Your task to perform on an android device: open app "Yahoo Mail" (install if not already installed) Image 0: 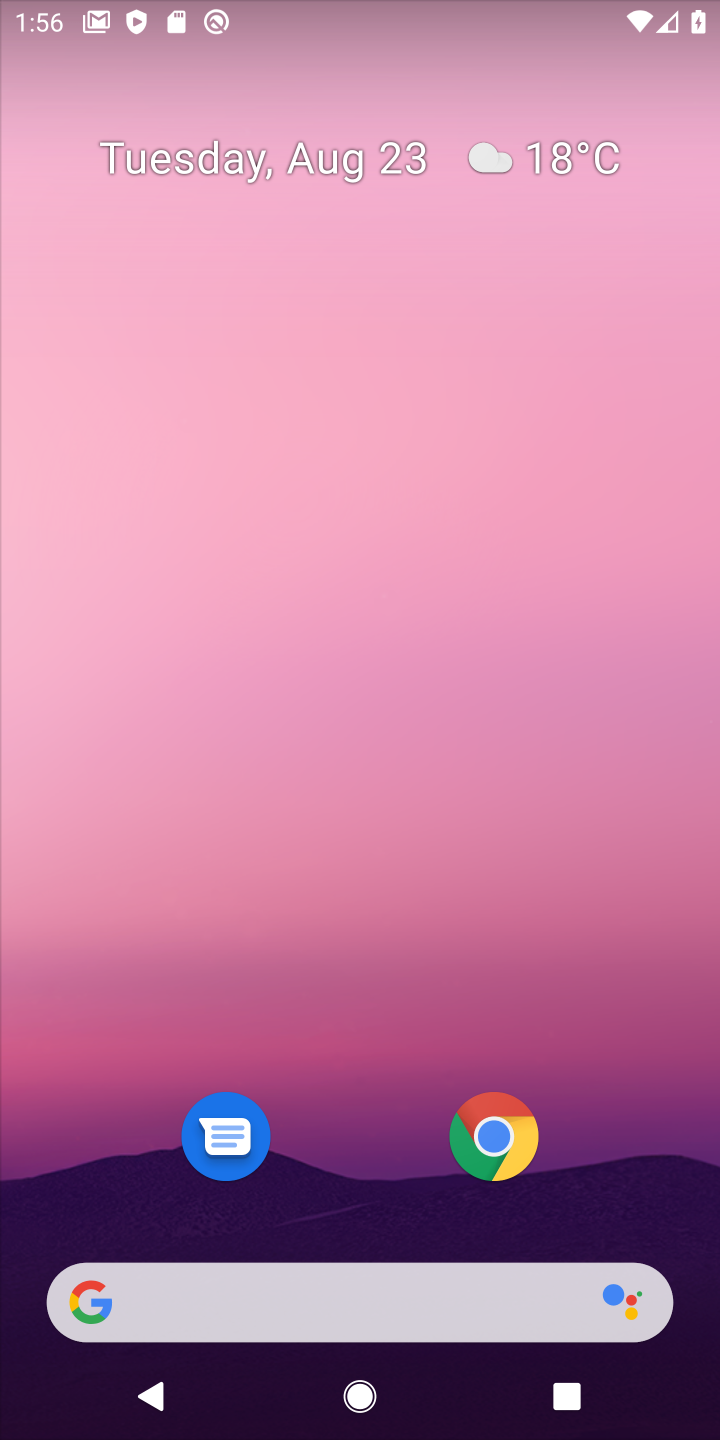
Step 0: press home button
Your task to perform on an android device: open app "Yahoo Mail" (install if not already installed) Image 1: 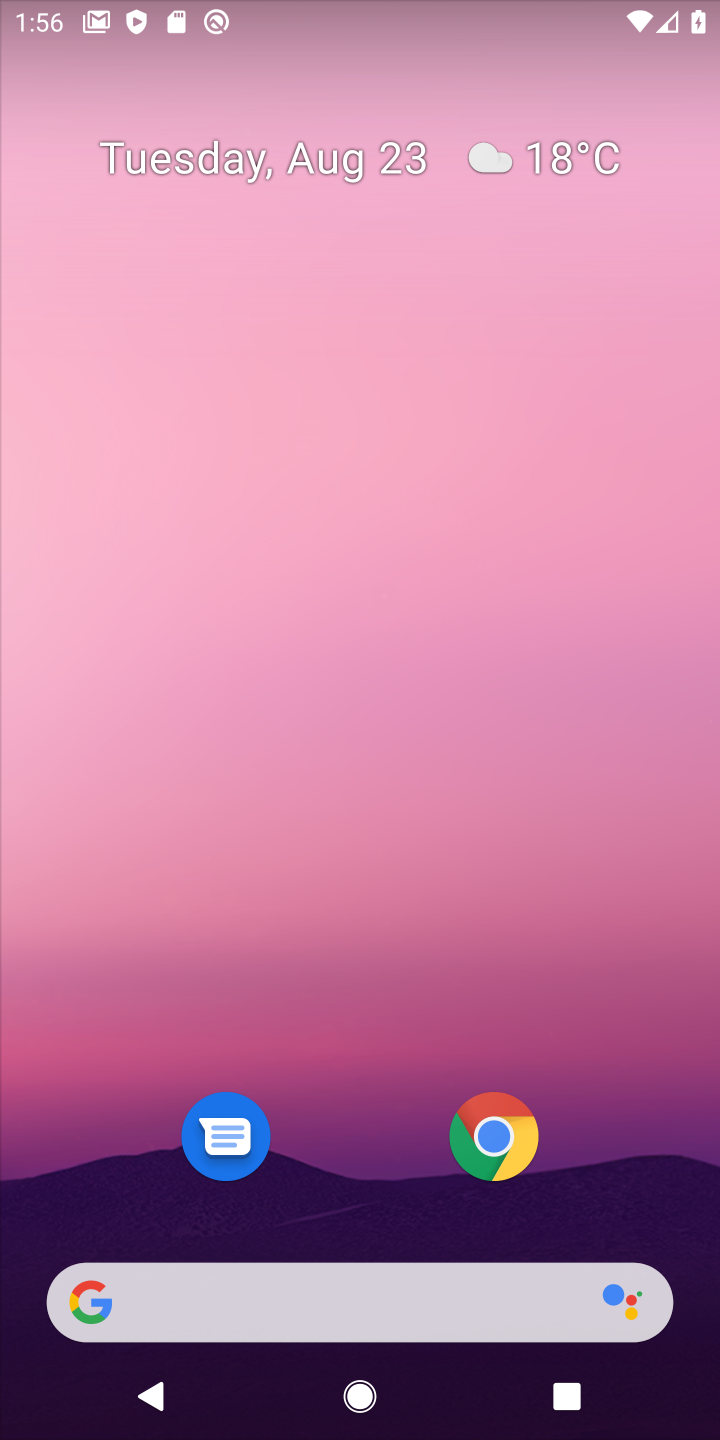
Step 1: drag from (360, 1223) to (388, 162)
Your task to perform on an android device: open app "Yahoo Mail" (install if not already installed) Image 2: 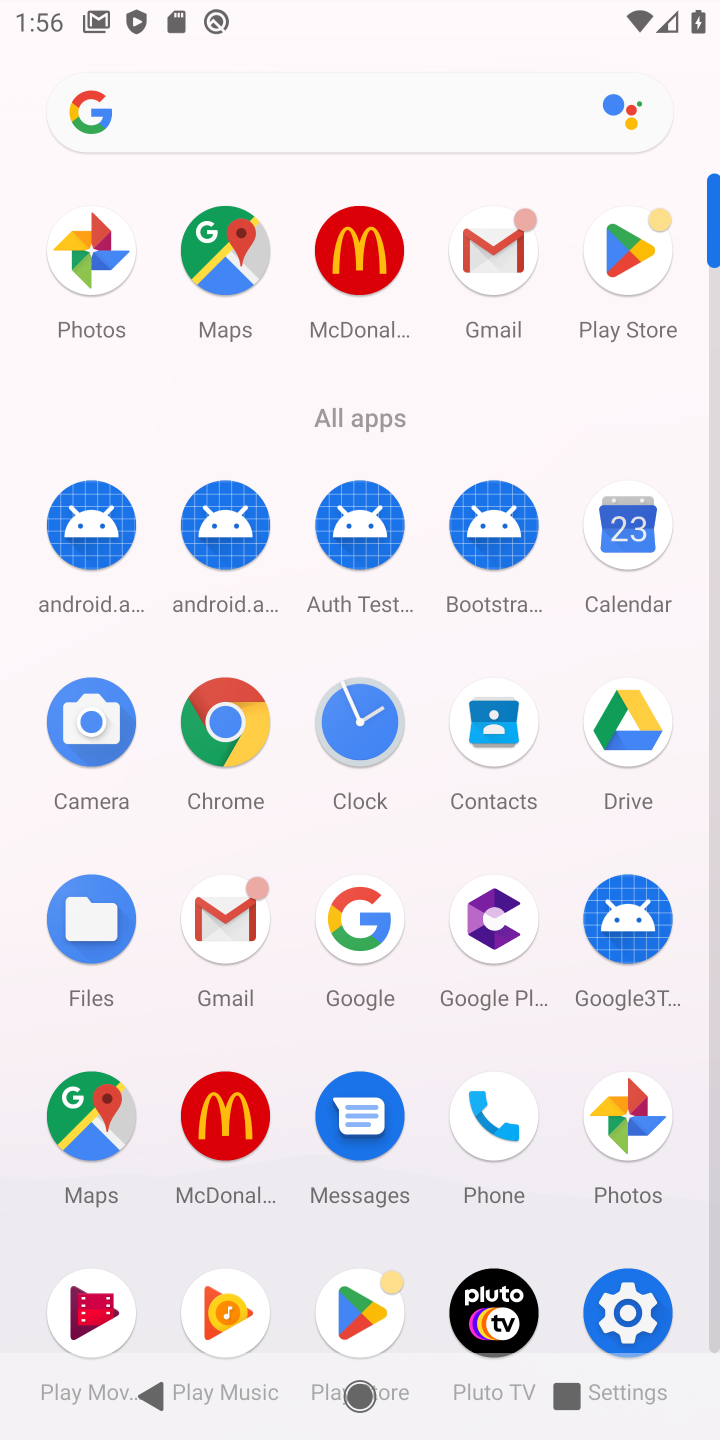
Step 2: click (627, 235)
Your task to perform on an android device: open app "Yahoo Mail" (install if not already installed) Image 3: 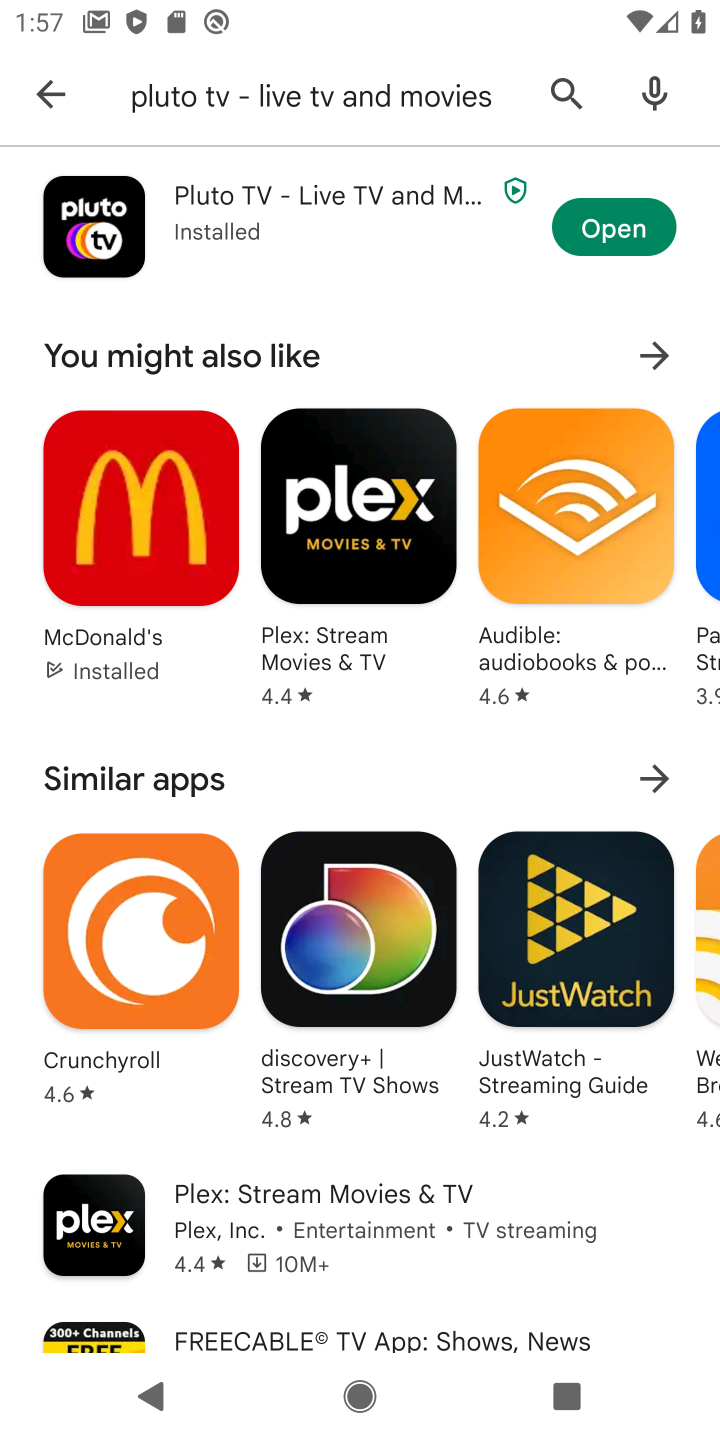
Step 3: click (559, 92)
Your task to perform on an android device: open app "Yahoo Mail" (install if not already installed) Image 4: 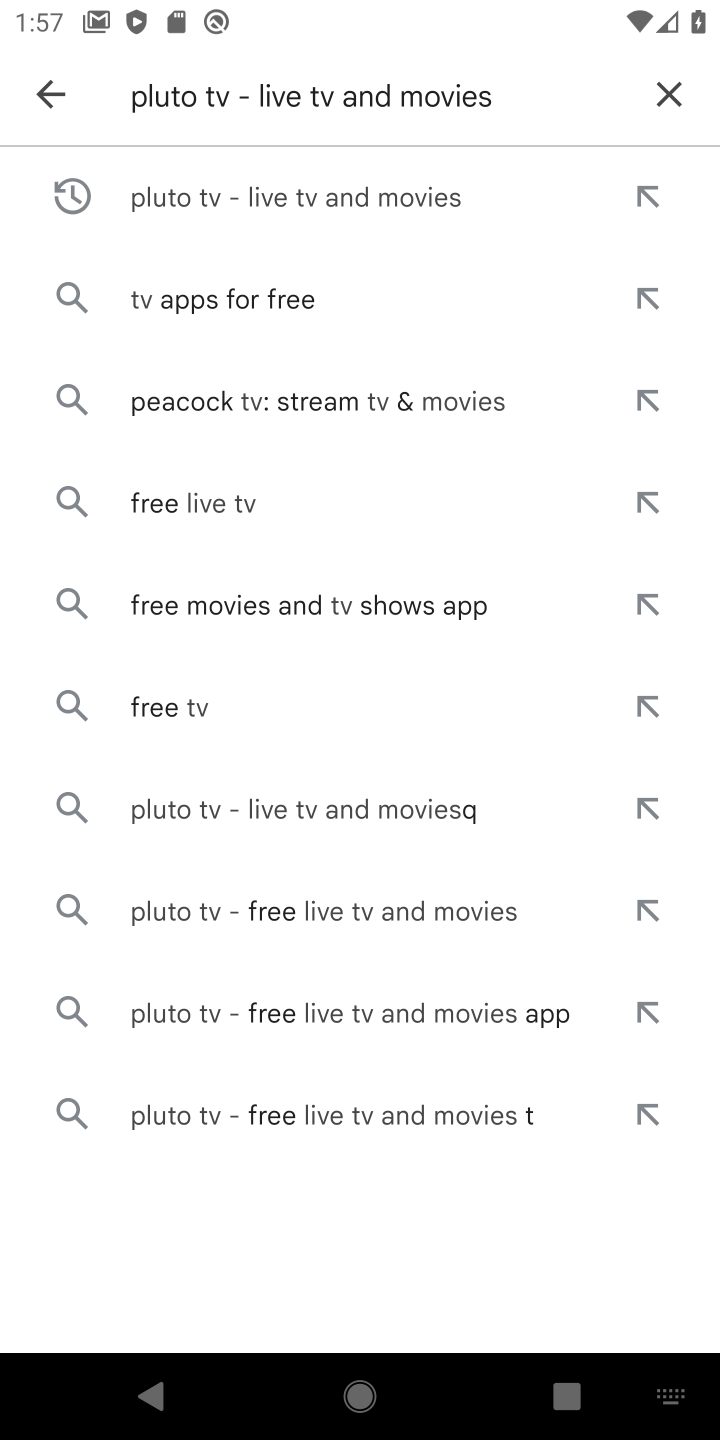
Step 4: click (660, 99)
Your task to perform on an android device: open app "Yahoo Mail" (install if not already installed) Image 5: 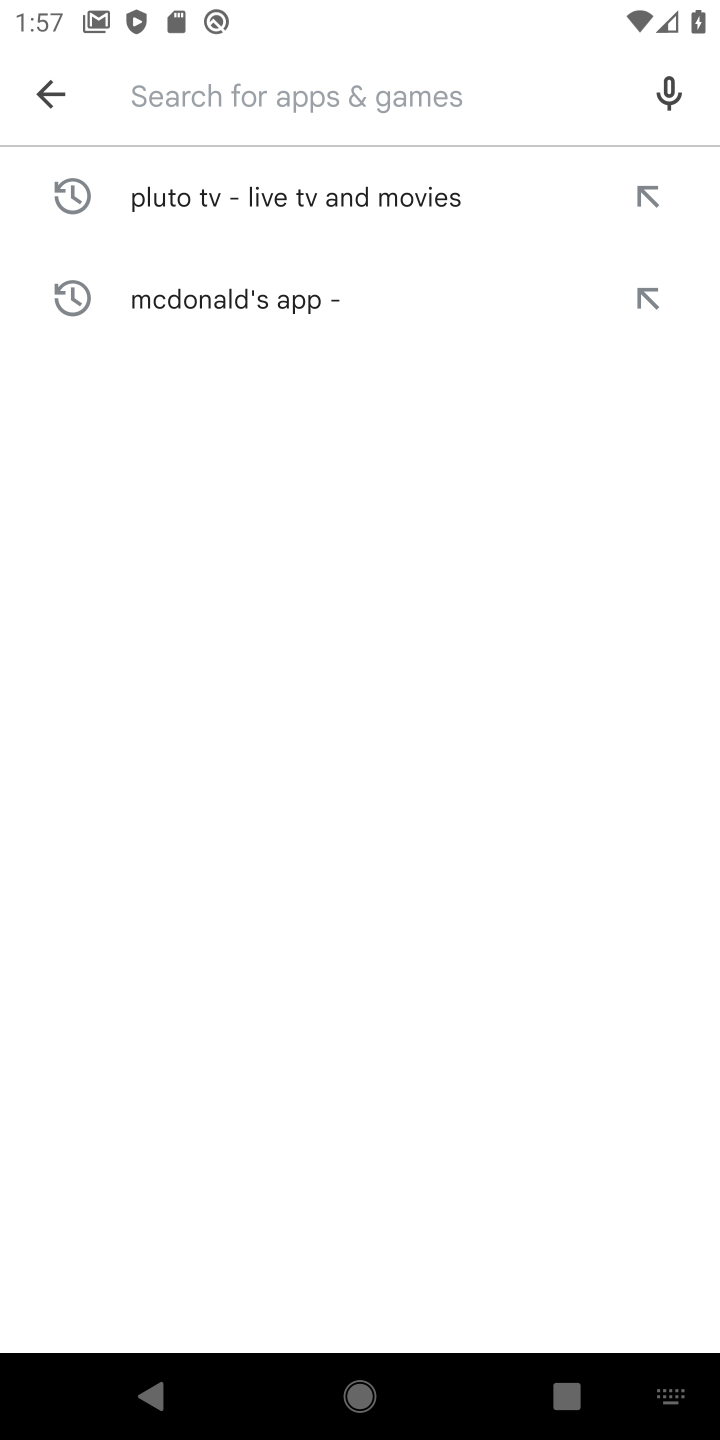
Step 5: type "Yahoo Mail"
Your task to perform on an android device: open app "Yahoo Mail" (install if not already installed) Image 6: 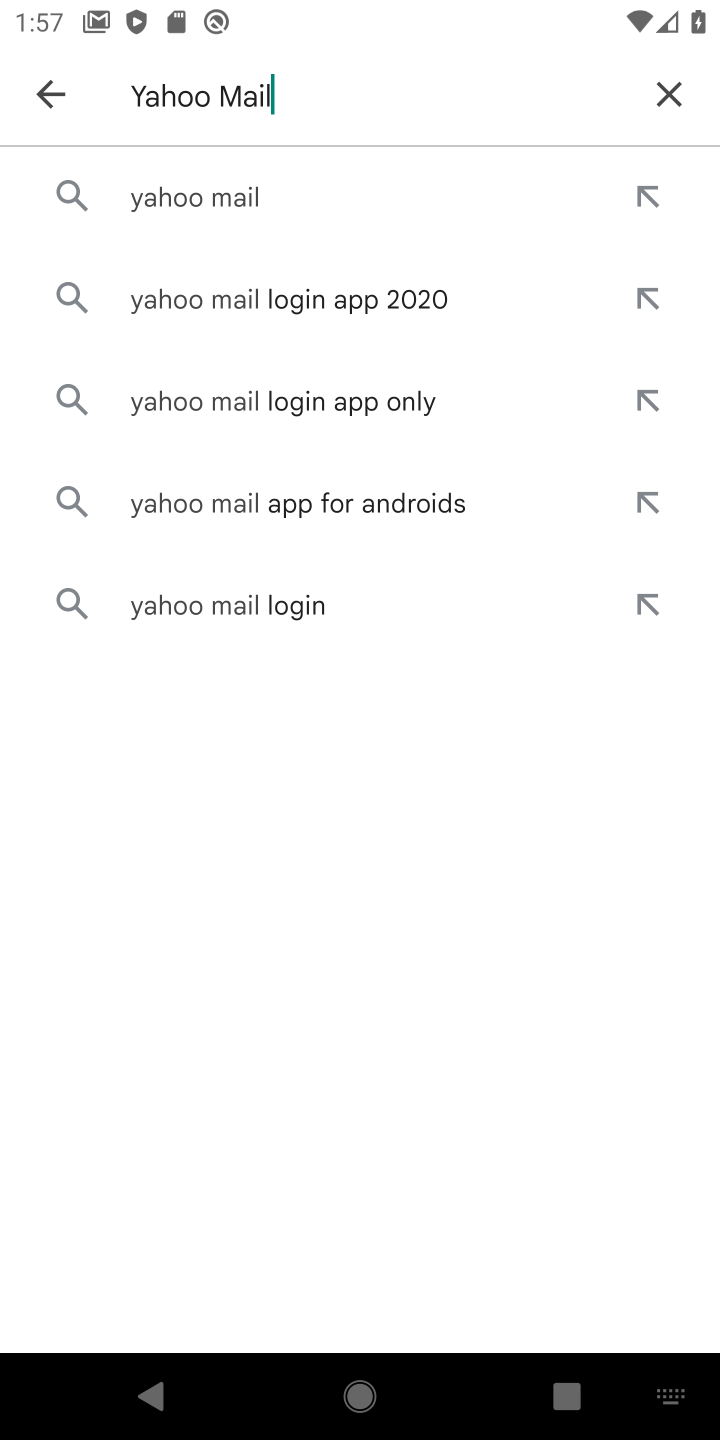
Step 6: click (284, 190)
Your task to perform on an android device: open app "Yahoo Mail" (install if not already installed) Image 7: 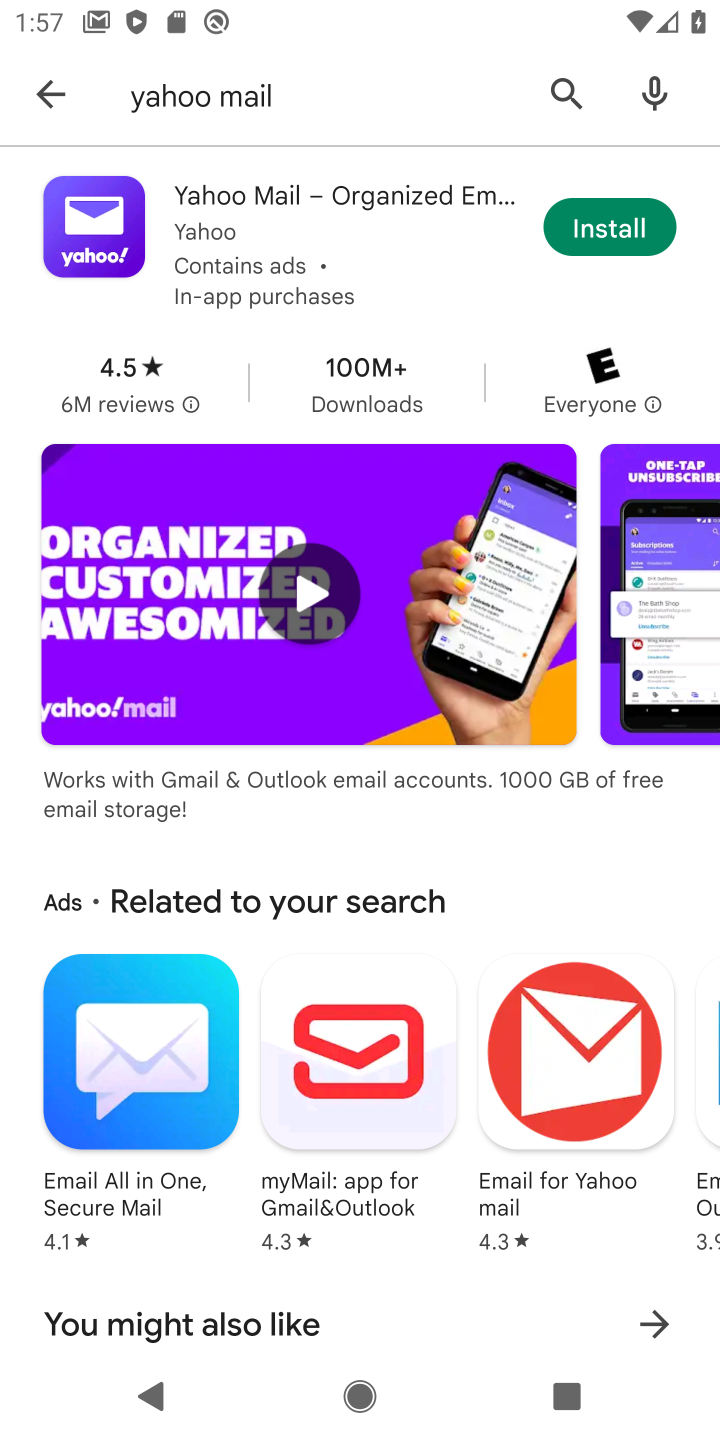
Step 7: click (602, 216)
Your task to perform on an android device: open app "Yahoo Mail" (install if not already installed) Image 8: 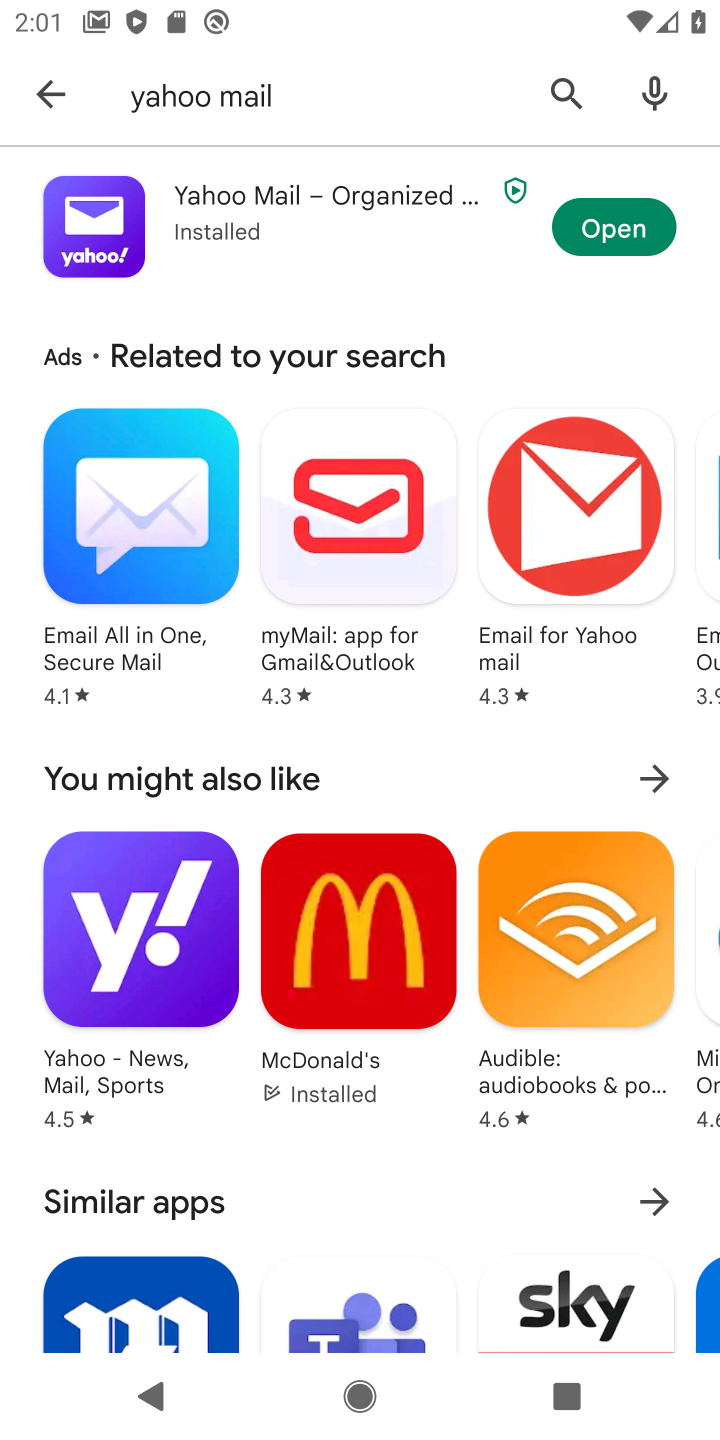
Step 8: click (654, 237)
Your task to perform on an android device: open app "Yahoo Mail" (install if not already installed) Image 9: 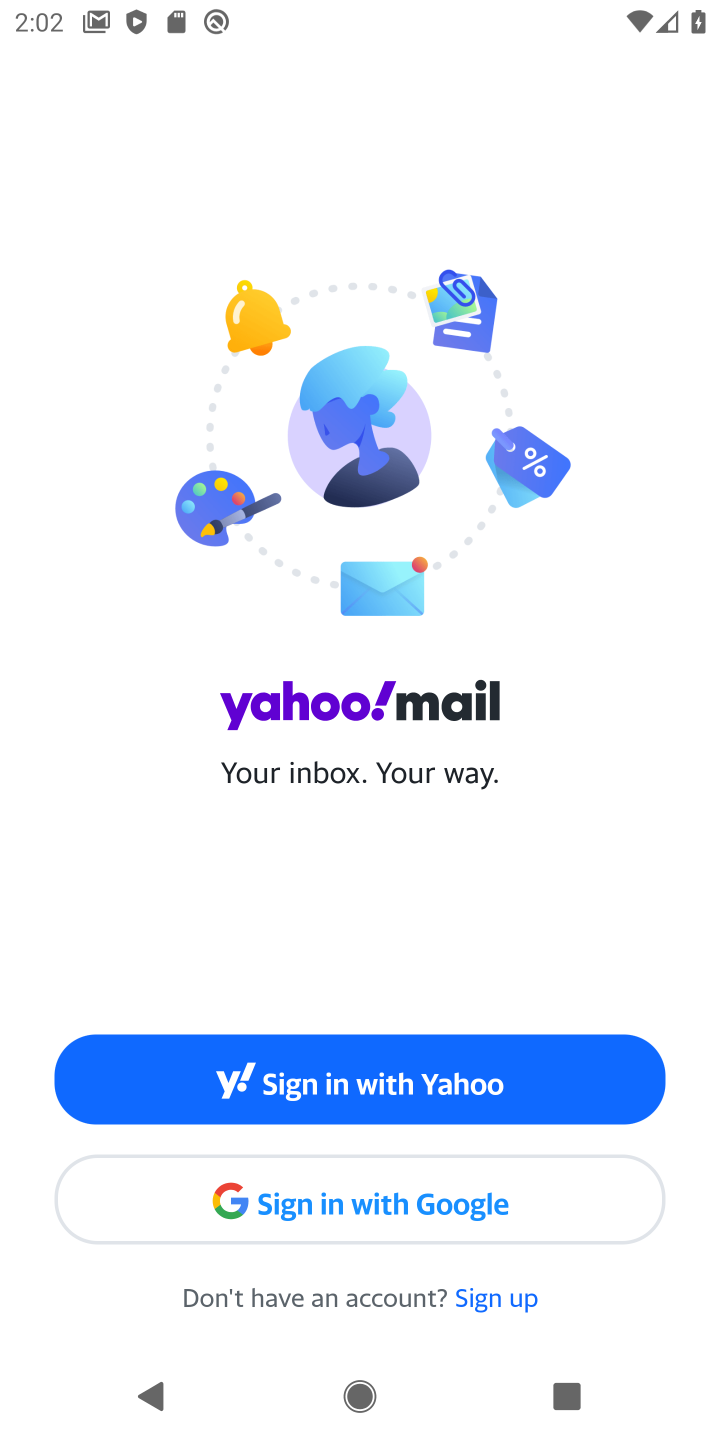
Step 9: click (342, 1197)
Your task to perform on an android device: open app "Yahoo Mail" (install if not already installed) Image 10: 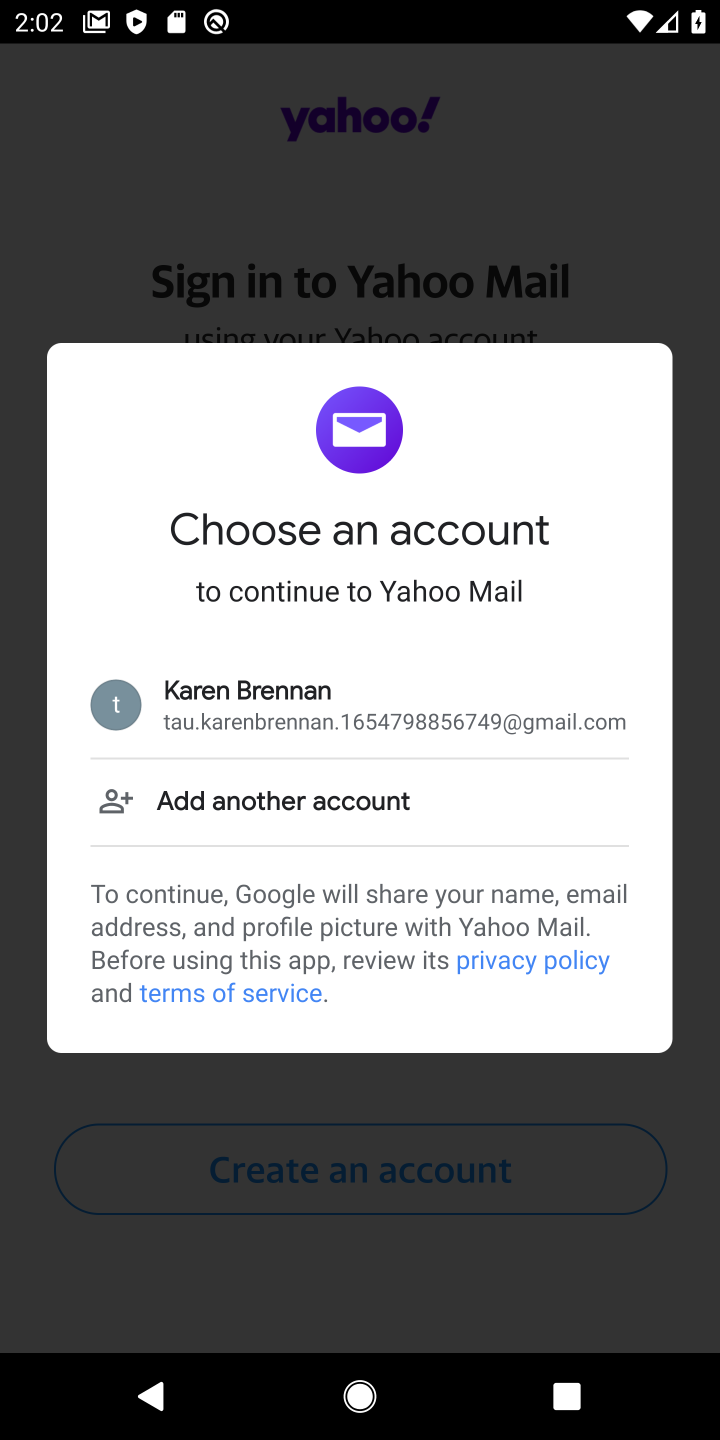
Step 10: click (171, 688)
Your task to perform on an android device: open app "Yahoo Mail" (install if not already installed) Image 11: 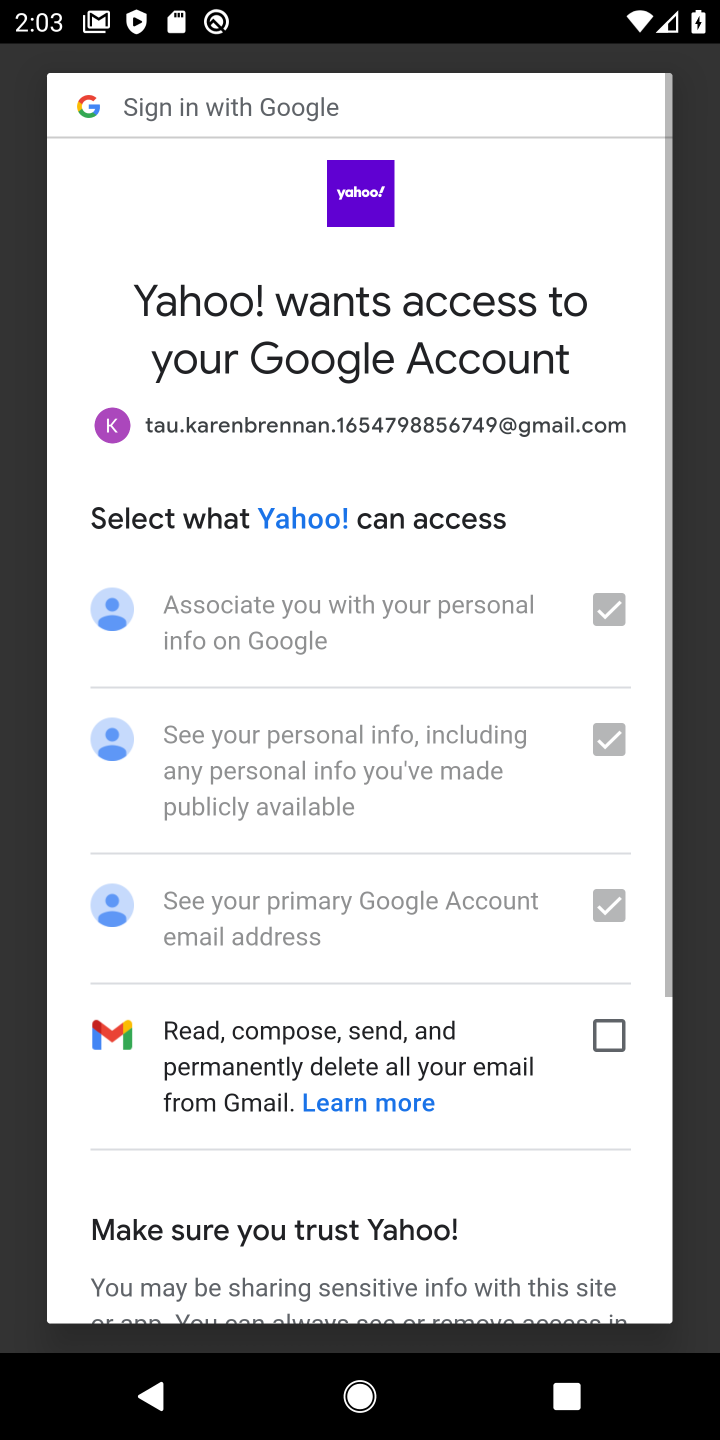
Step 11: drag from (430, 1164) to (441, 212)
Your task to perform on an android device: open app "Yahoo Mail" (install if not already installed) Image 12: 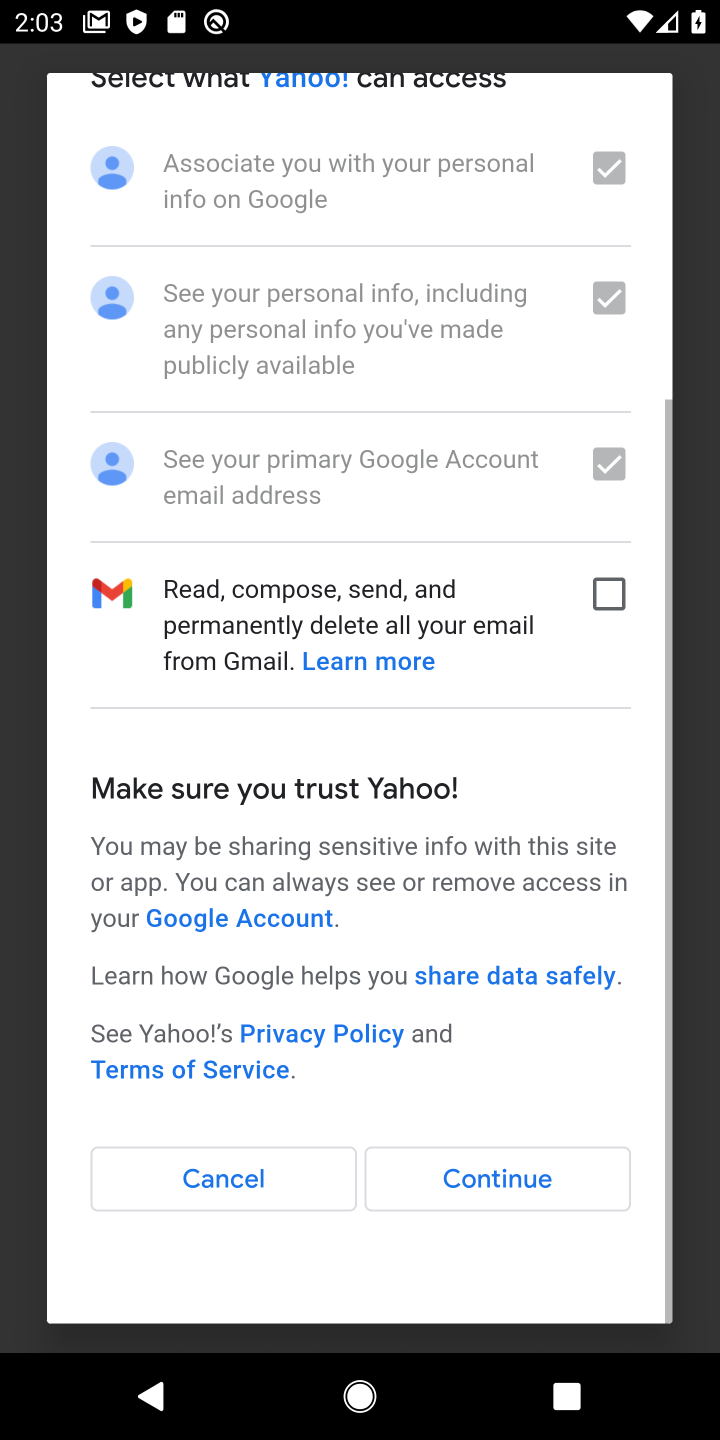
Step 12: click (472, 1175)
Your task to perform on an android device: open app "Yahoo Mail" (install if not already installed) Image 13: 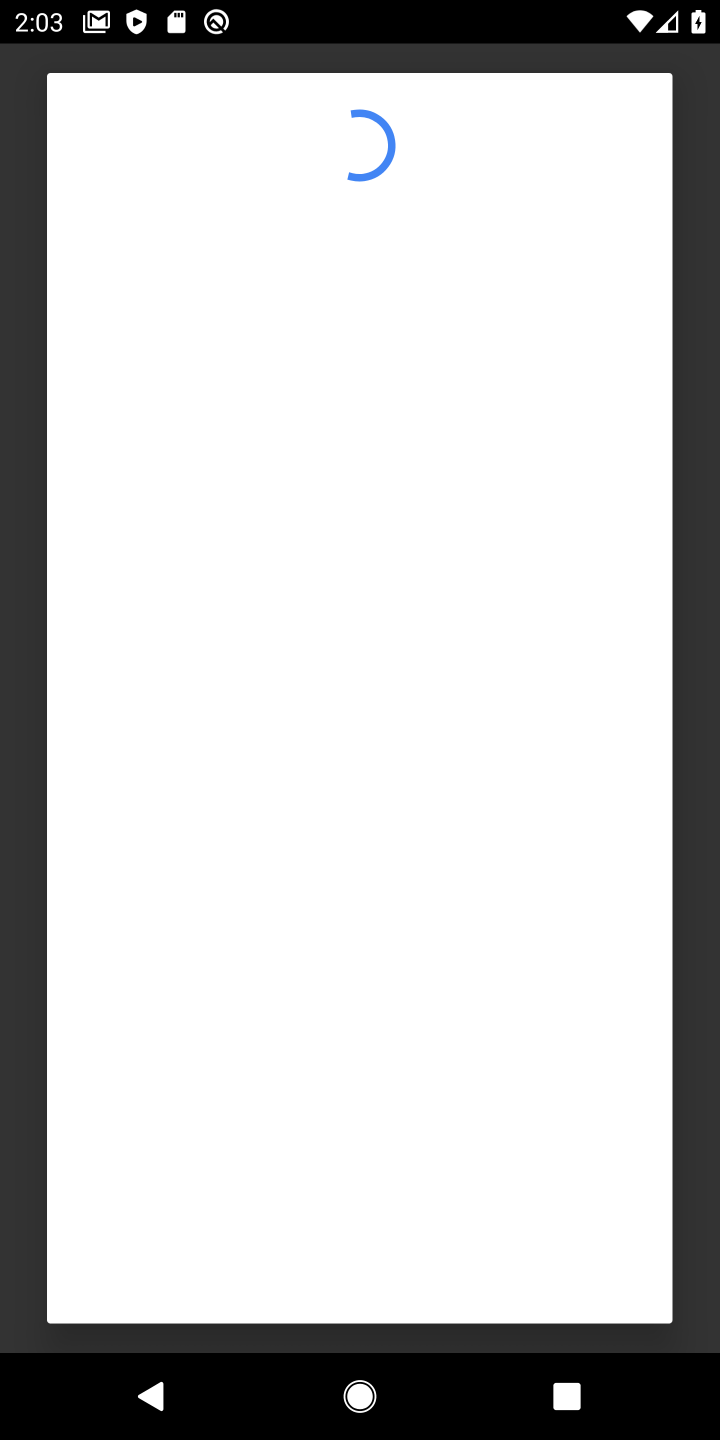
Step 13: task complete